Your task to perform on an android device: open sync settings in chrome Image 0: 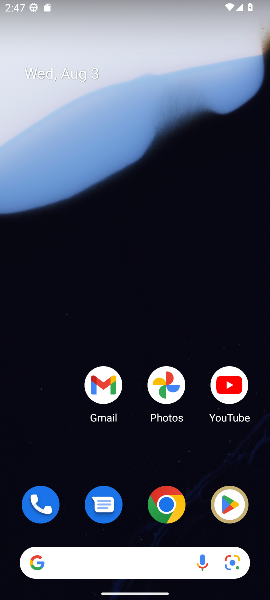
Step 0: drag from (60, 434) to (95, 27)
Your task to perform on an android device: open sync settings in chrome Image 1: 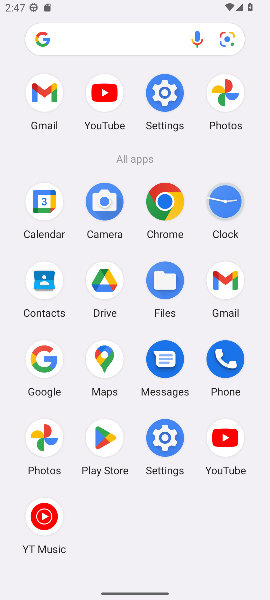
Step 1: click (164, 205)
Your task to perform on an android device: open sync settings in chrome Image 2: 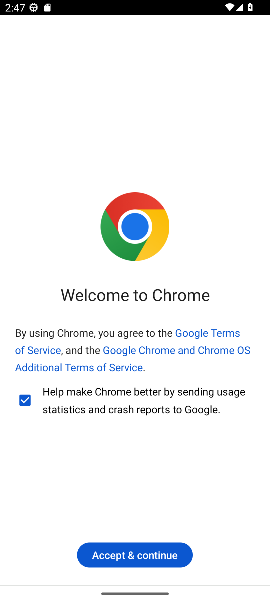
Step 2: click (164, 555)
Your task to perform on an android device: open sync settings in chrome Image 3: 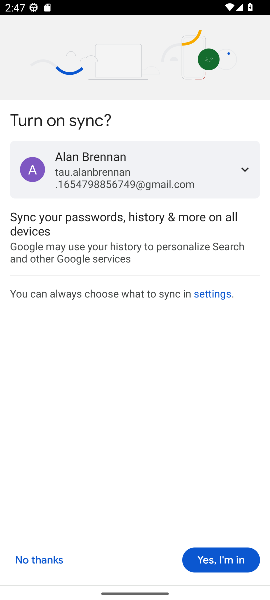
Step 3: click (218, 554)
Your task to perform on an android device: open sync settings in chrome Image 4: 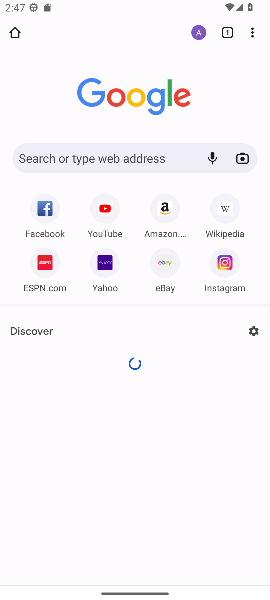
Step 4: drag from (255, 30) to (164, 294)
Your task to perform on an android device: open sync settings in chrome Image 5: 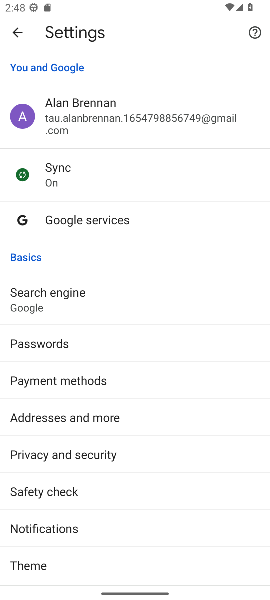
Step 5: click (114, 119)
Your task to perform on an android device: open sync settings in chrome Image 6: 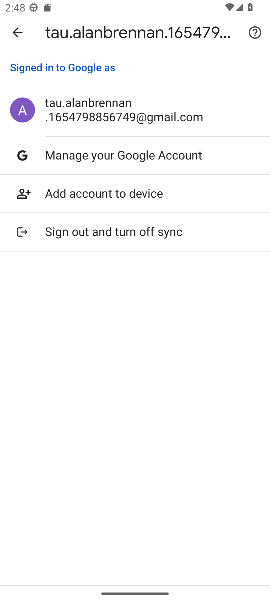
Step 6: click (21, 28)
Your task to perform on an android device: open sync settings in chrome Image 7: 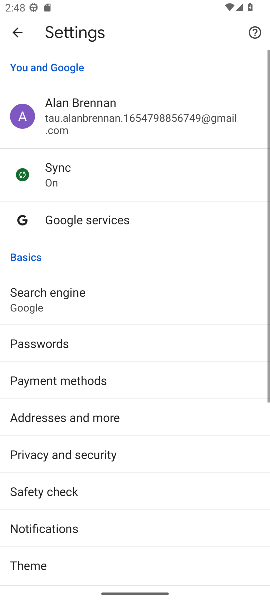
Step 7: click (112, 170)
Your task to perform on an android device: open sync settings in chrome Image 8: 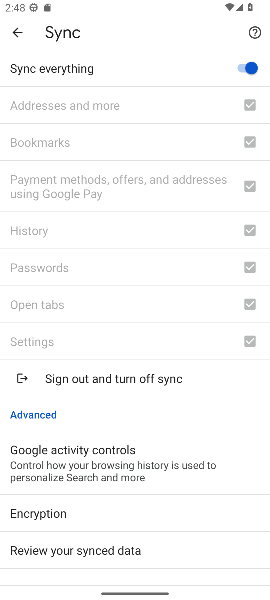
Step 8: task complete